Your task to perform on an android device: check battery use Image 0: 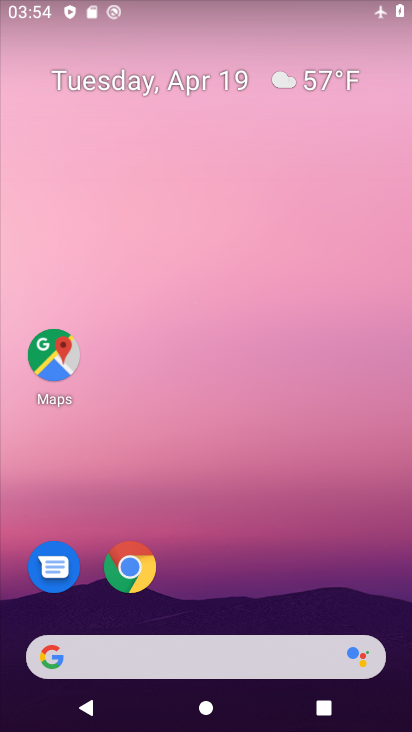
Step 0: drag from (356, 595) to (340, 125)
Your task to perform on an android device: check battery use Image 1: 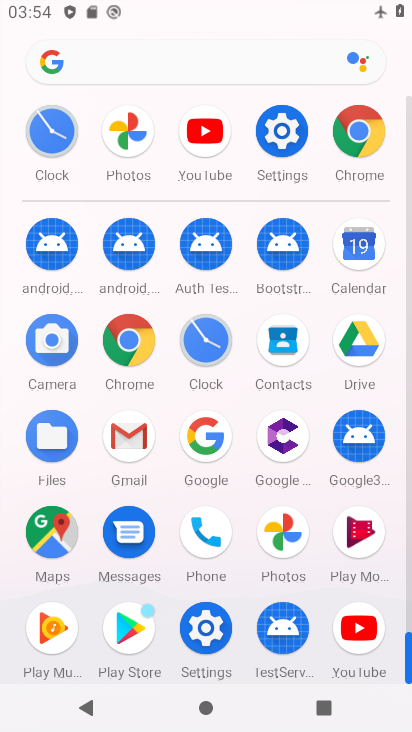
Step 1: click (207, 630)
Your task to perform on an android device: check battery use Image 2: 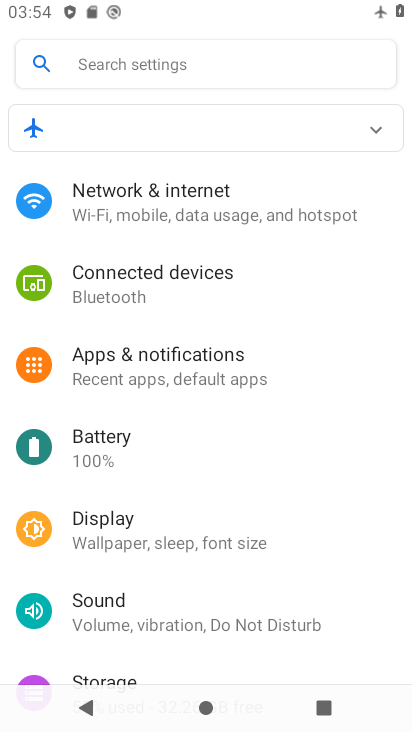
Step 2: drag from (357, 608) to (373, 352)
Your task to perform on an android device: check battery use Image 3: 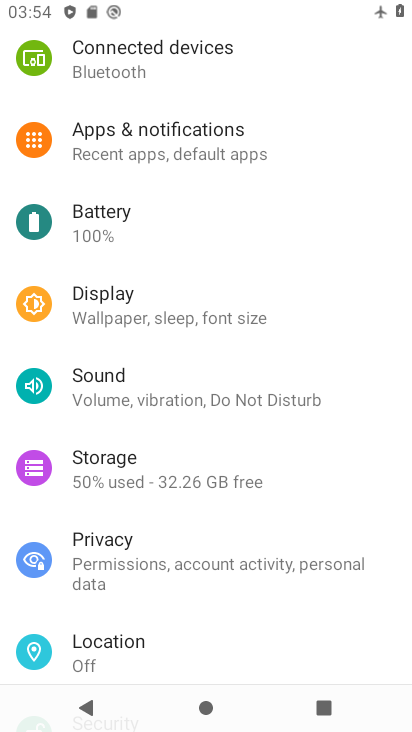
Step 3: drag from (340, 621) to (338, 429)
Your task to perform on an android device: check battery use Image 4: 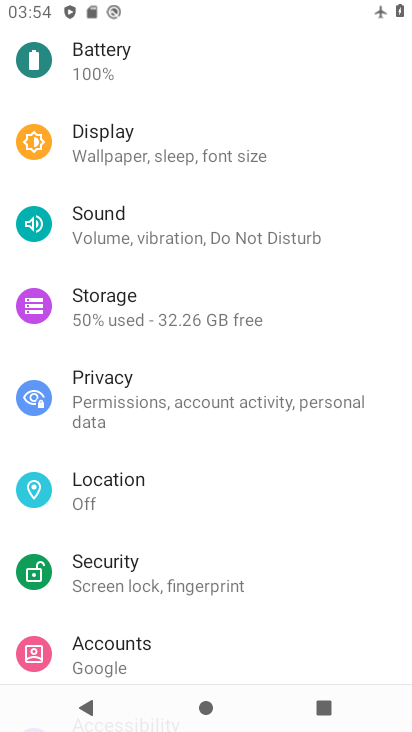
Step 4: drag from (330, 591) to (352, 416)
Your task to perform on an android device: check battery use Image 5: 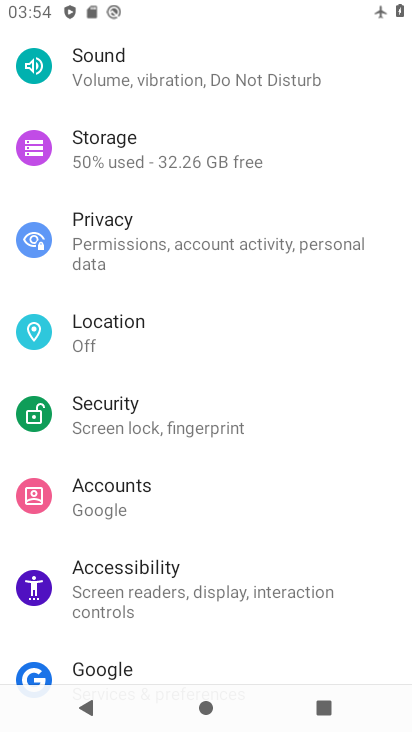
Step 5: drag from (355, 635) to (367, 418)
Your task to perform on an android device: check battery use Image 6: 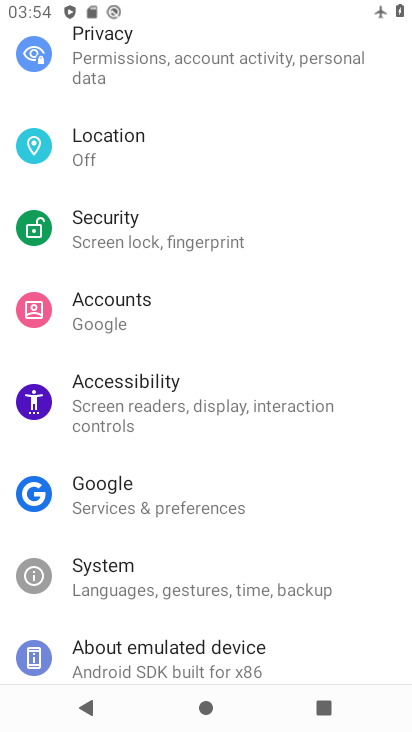
Step 6: drag from (359, 429) to (352, 563)
Your task to perform on an android device: check battery use Image 7: 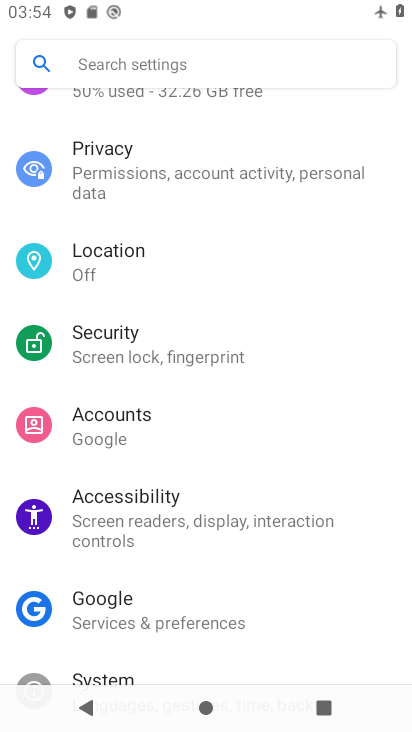
Step 7: drag from (364, 374) to (349, 558)
Your task to perform on an android device: check battery use Image 8: 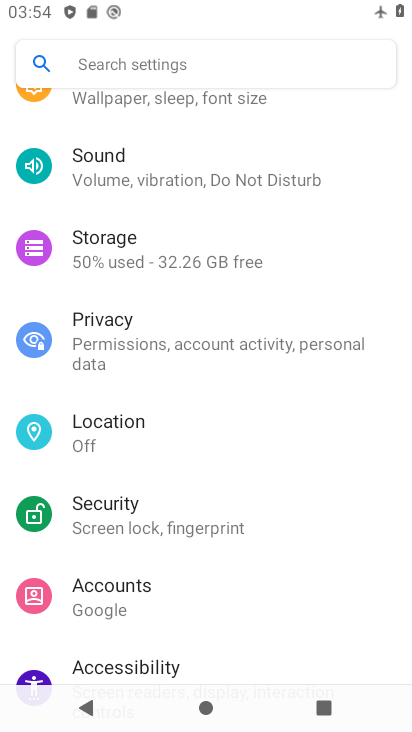
Step 8: drag from (381, 361) to (367, 540)
Your task to perform on an android device: check battery use Image 9: 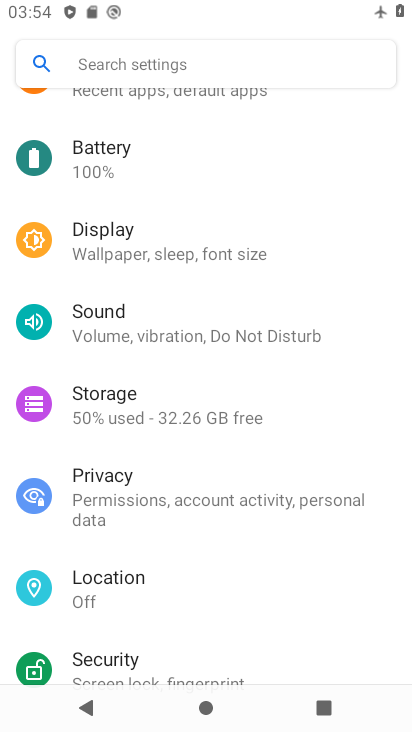
Step 9: drag from (366, 363) to (366, 551)
Your task to perform on an android device: check battery use Image 10: 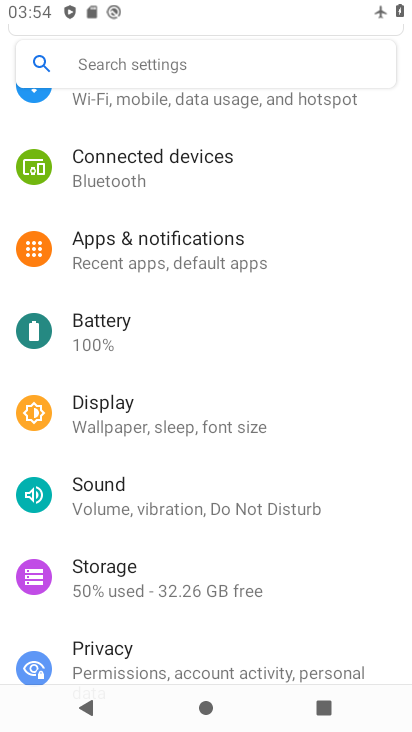
Step 10: drag from (367, 324) to (366, 472)
Your task to perform on an android device: check battery use Image 11: 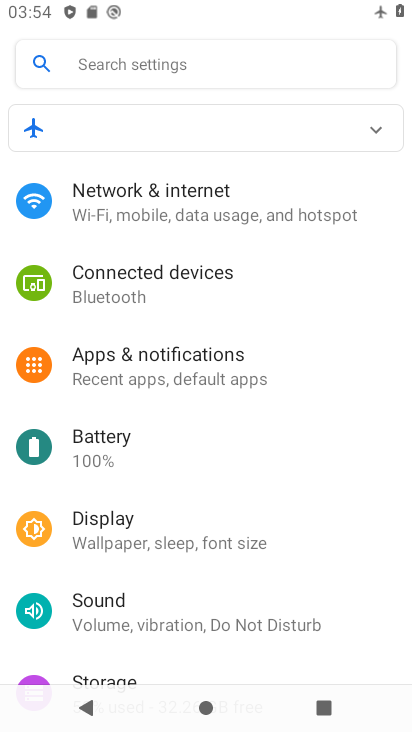
Step 11: click (256, 459)
Your task to perform on an android device: check battery use Image 12: 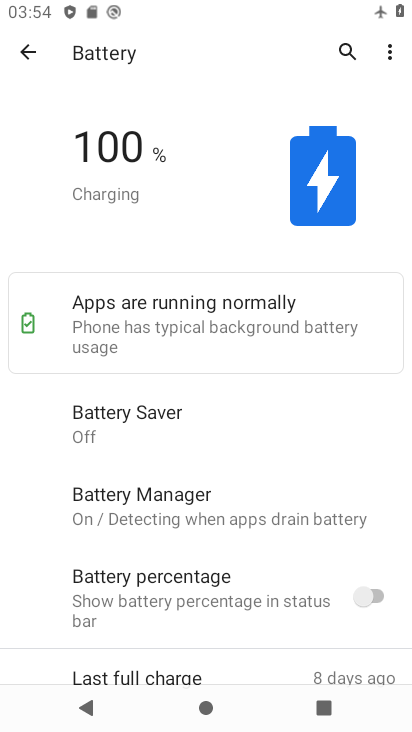
Step 12: click (388, 49)
Your task to perform on an android device: check battery use Image 13: 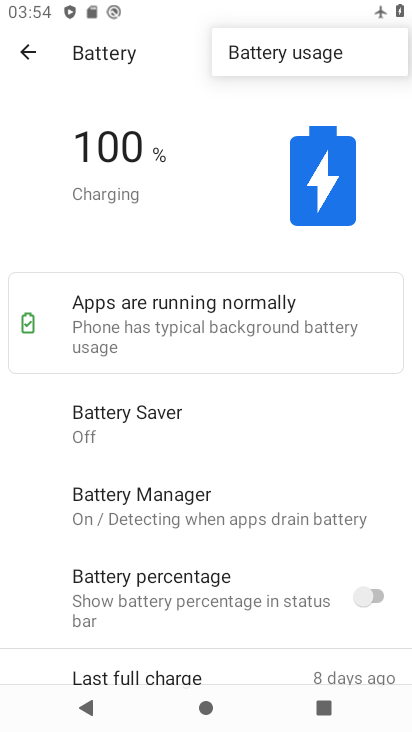
Step 13: click (314, 51)
Your task to perform on an android device: check battery use Image 14: 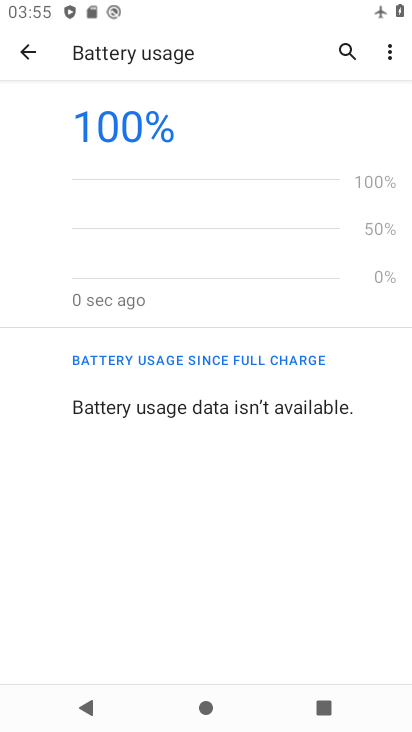
Step 14: task complete